Your task to perform on an android device: allow notifications from all sites in the chrome app Image 0: 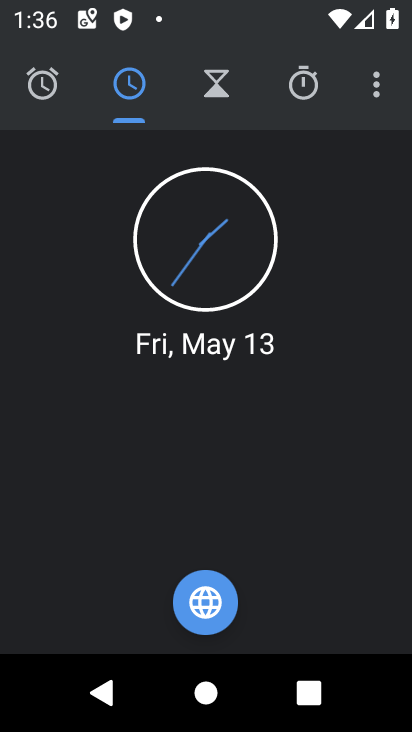
Step 0: press home button
Your task to perform on an android device: allow notifications from all sites in the chrome app Image 1: 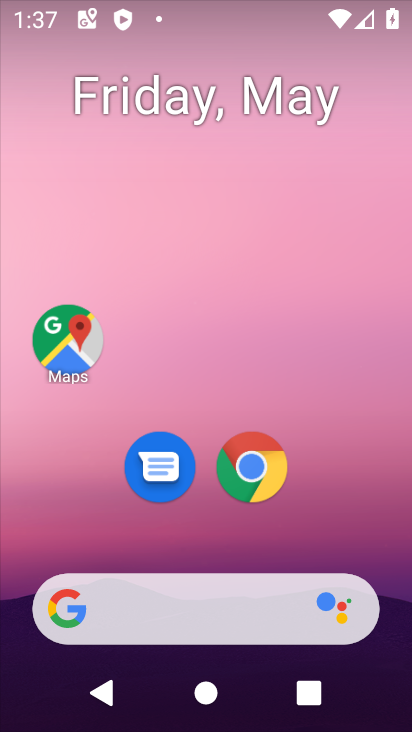
Step 1: click (258, 482)
Your task to perform on an android device: allow notifications from all sites in the chrome app Image 2: 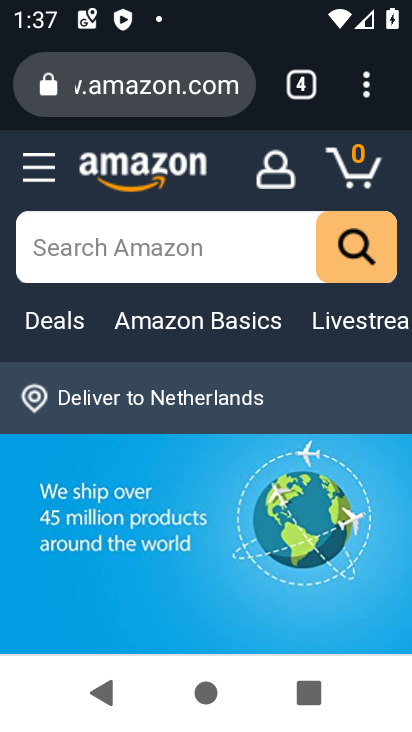
Step 2: click (363, 83)
Your task to perform on an android device: allow notifications from all sites in the chrome app Image 3: 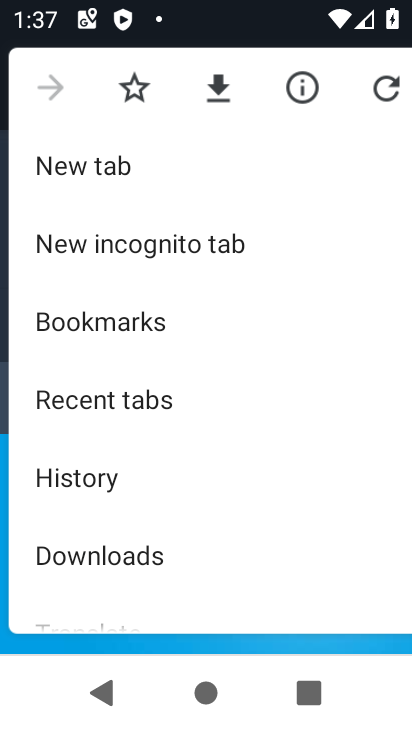
Step 3: drag from (78, 594) to (88, 146)
Your task to perform on an android device: allow notifications from all sites in the chrome app Image 4: 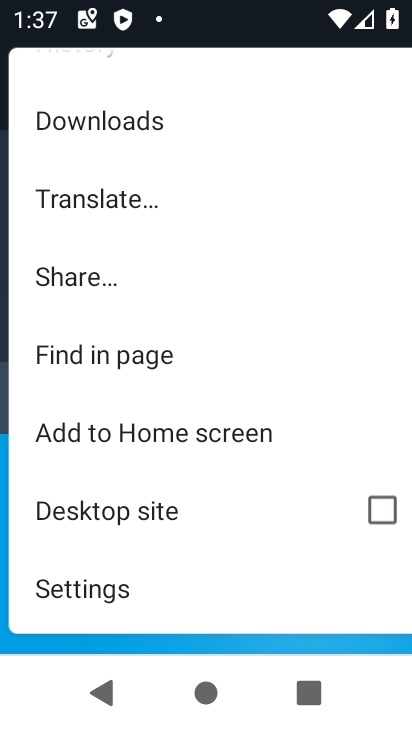
Step 4: click (91, 587)
Your task to perform on an android device: allow notifications from all sites in the chrome app Image 5: 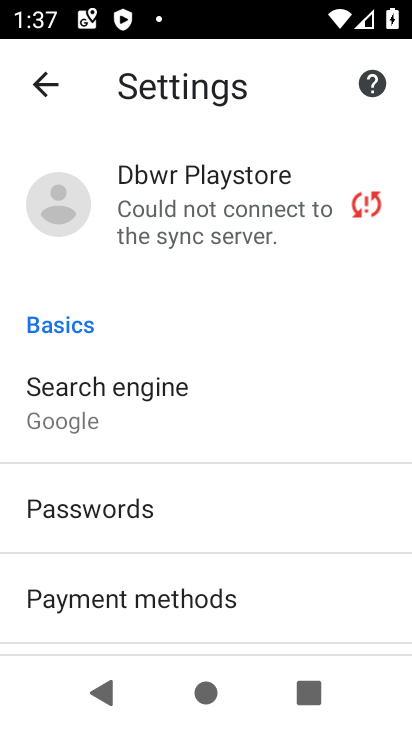
Step 5: drag from (110, 538) to (153, 289)
Your task to perform on an android device: allow notifications from all sites in the chrome app Image 6: 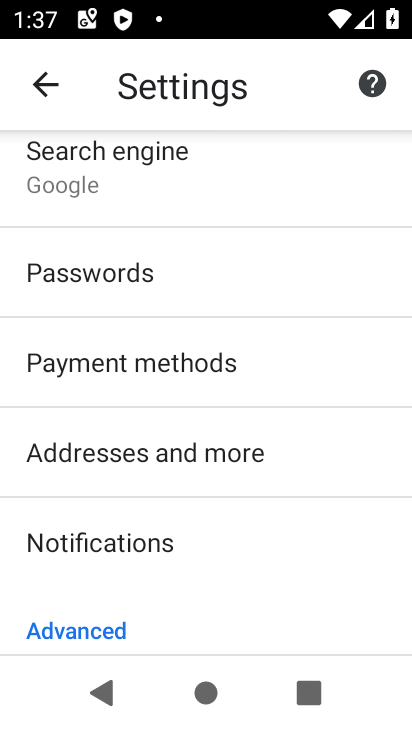
Step 6: drag from (107, 507) to (160, 225)
Your task to perform on an android device: allow notifications from all sites in the chrome app Image 7: 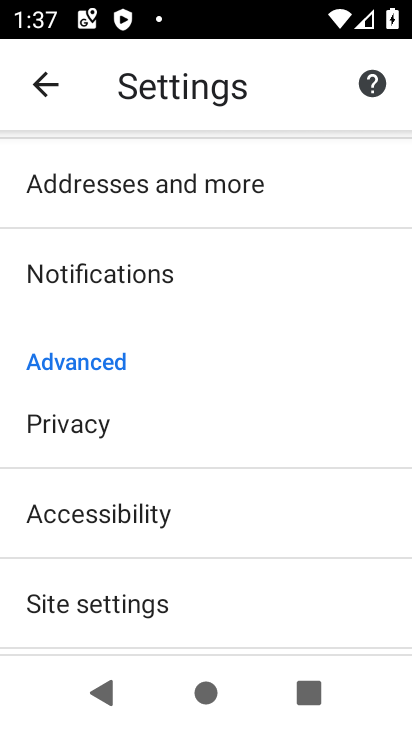
Step 7: click (98, 592)
Your task to perform on an android device: allow notifications from all sites in the chrome app Image 8: 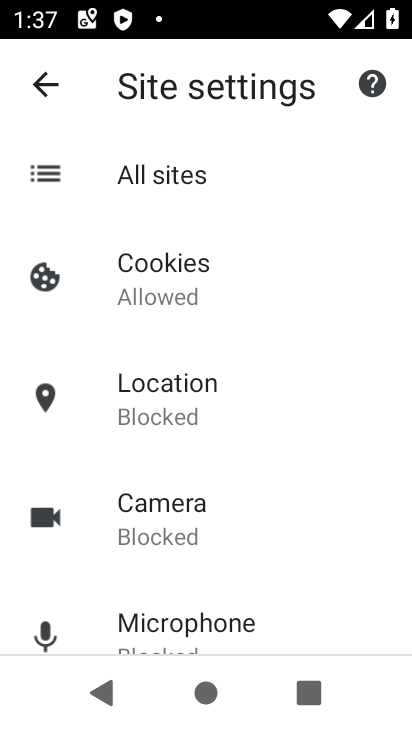
Step 8: drag from (196, 335) to (196, 119)
Your task to perform on an android device: allow notifications from all sites in the chrome app Image 9: 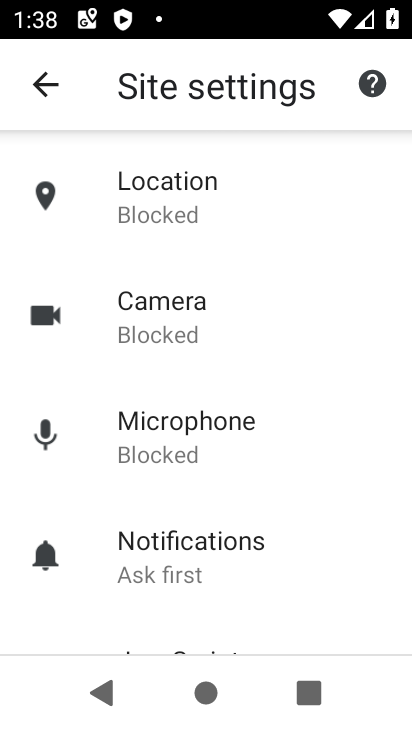
Step 9: click (171, 553)
Your task to perform on an android device: allow notifications from all sites in the chrome app Image 10: 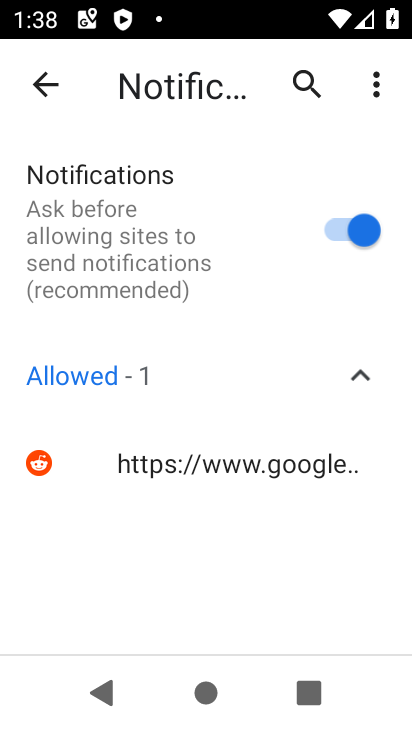
Step 10: task complete